Your task to perform on an android device: Open settings on Google Maps Image 0: 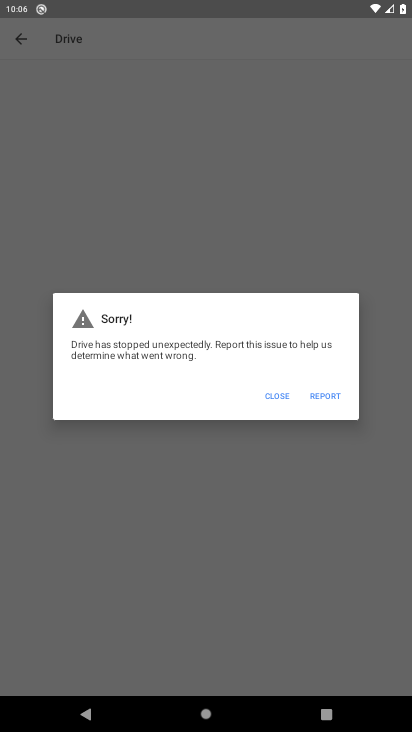
Step 0: press home button
Your task to perform on an android device: Open settings on Google Maps Image 1: 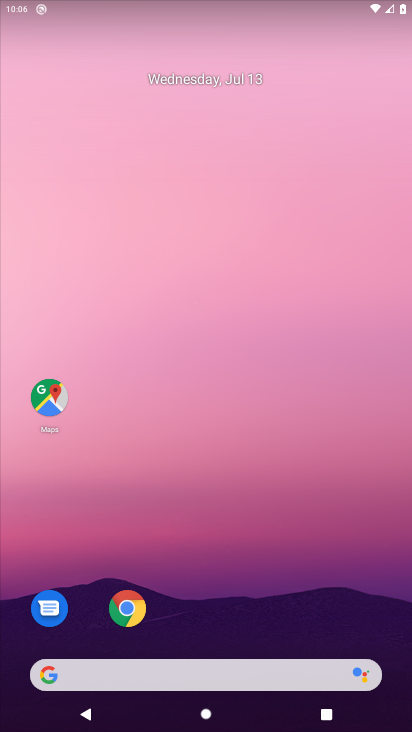
Step 1: click (52, 403)
Your task to perform on an android device: Open settings on Google Maps Image 2: 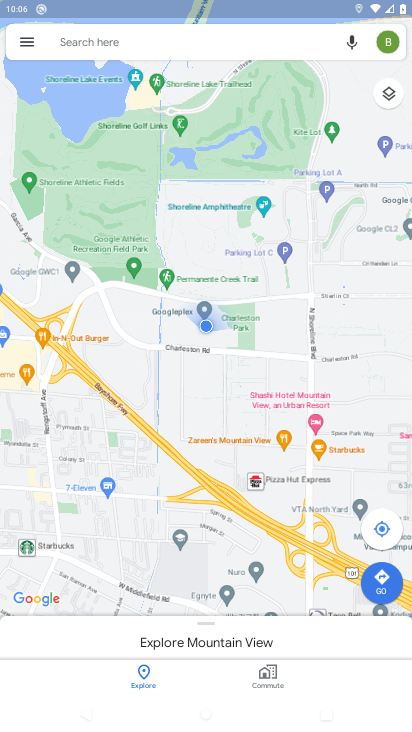
Step 2: click (24, 41)
Your task to perform on an android device: Open settings on Google Maps Image 3: 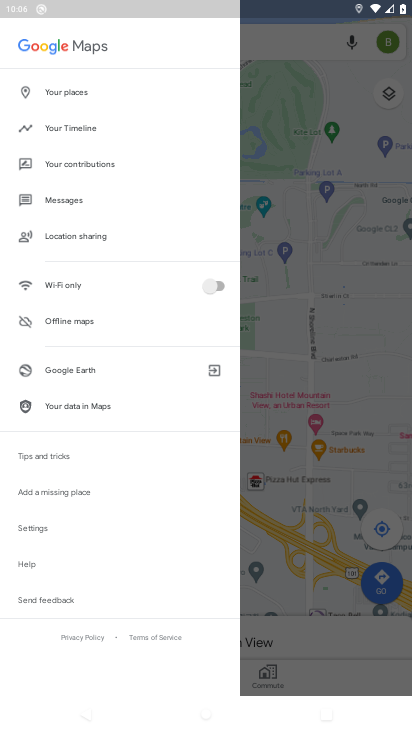
Step 3: click (37, 524)
Your task to perform on an android device: Open settings on Google Maps Image 4: 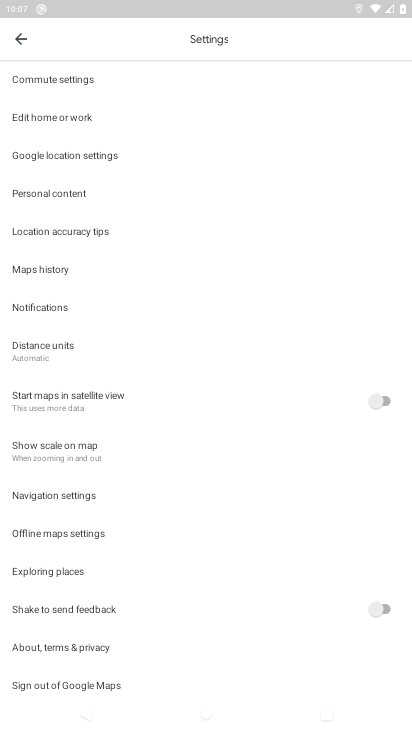
Step 4: task complete